Your task to perform on an android device: open app "DuckDuckGo Privacy Browser" Image 0: 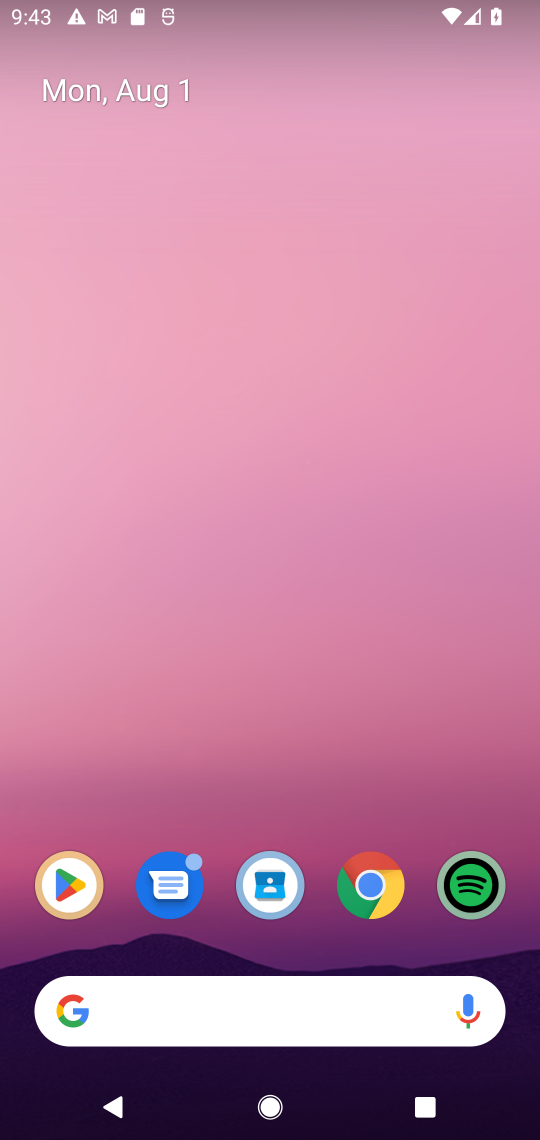
Step 0: drag from (314, 1127) to (280, 32)
Your task to perform on an android device: open app "DuckDuckGo Privacy Browser" Image 1: 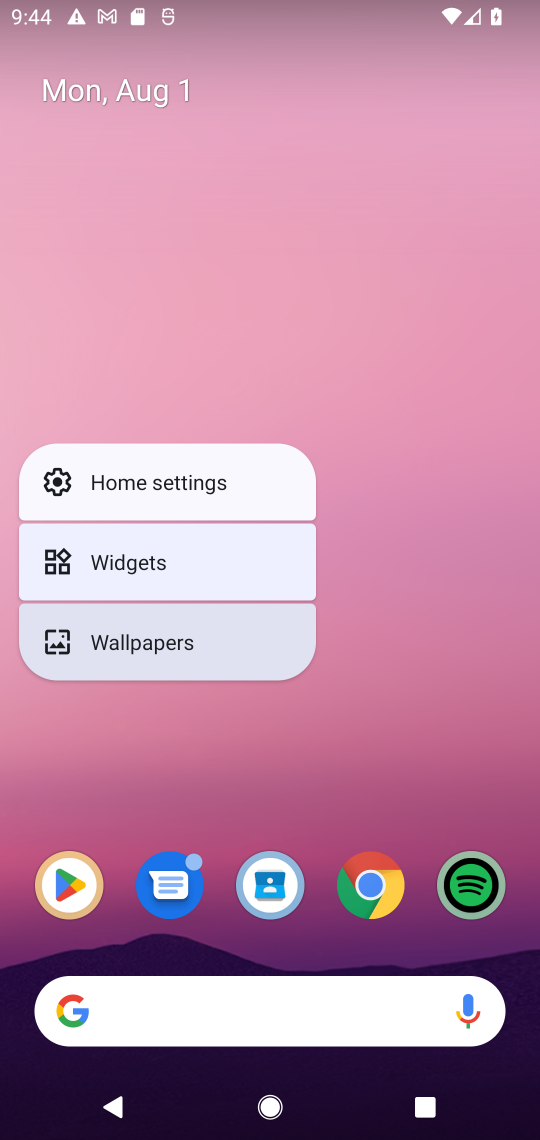
Step 1: click (381, 697)
Your task to perform on an android device: open app "DuckDuckGo Privacy Browser" Image 2: 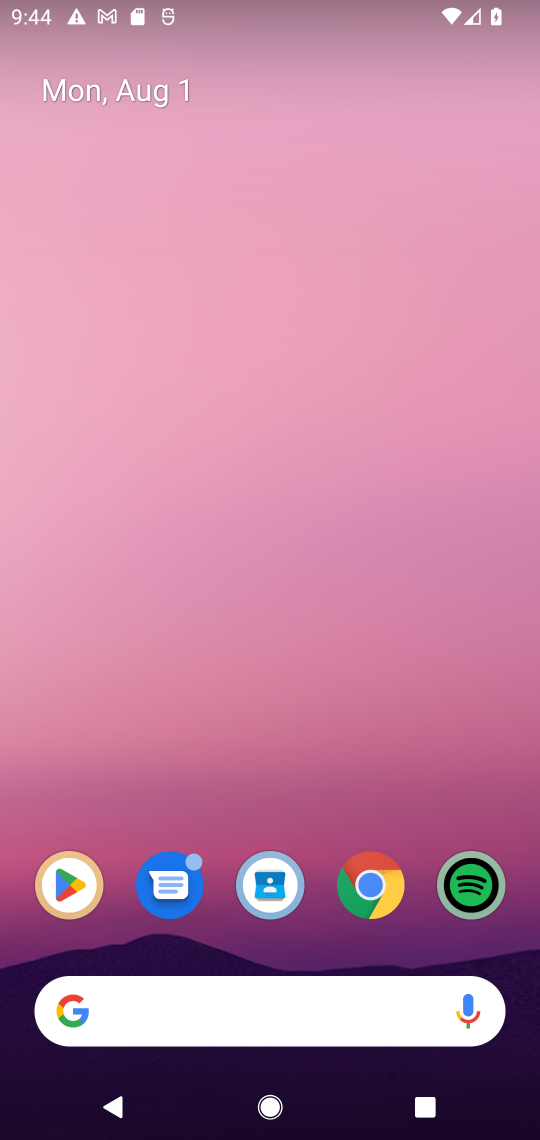
Step 2: drag from (294, 928) to (256, 16)
Your task to perform on an android device: open app "DuckDuckGo Privacy Browser" Image 3: 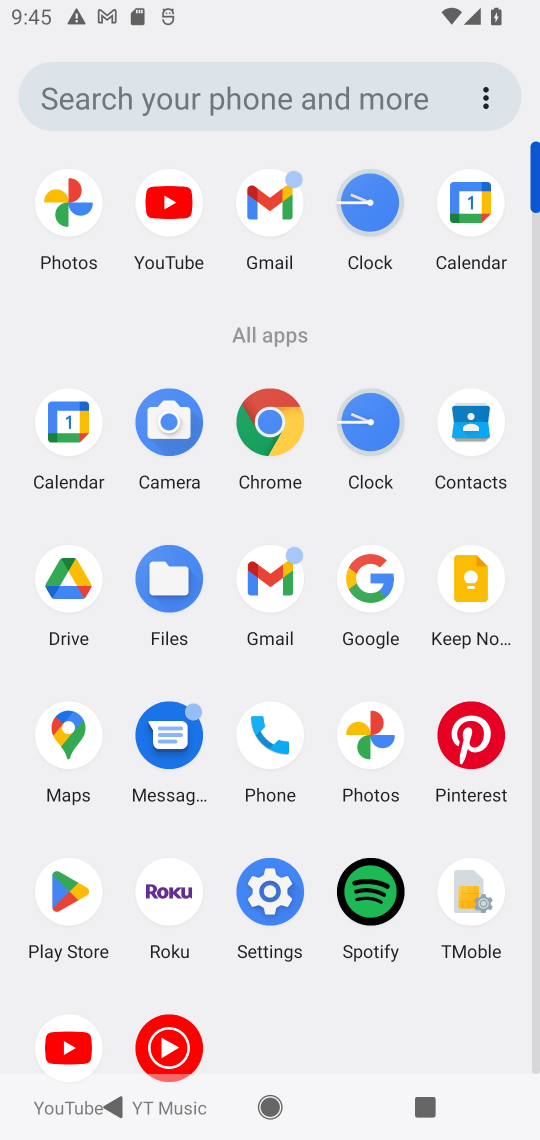
Step 3: click (67, 891)
Your task to perform on an android device: open app "DuckDuckGo Privacy Browser" Image 4: 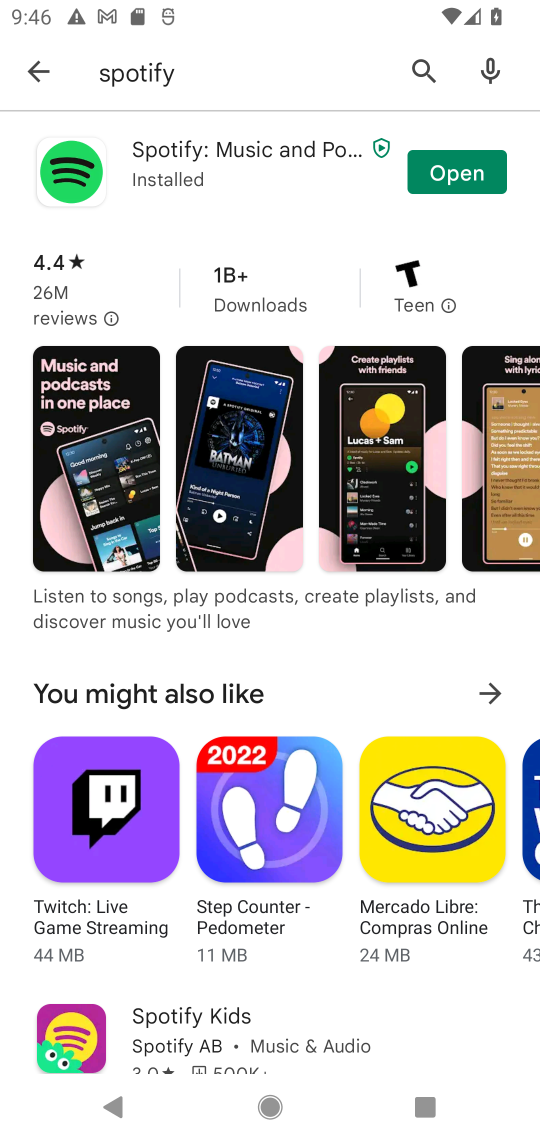
Step 4: click (421, 60)
Your task to perform on an android device: open app "DuckDuckGo Privacy Browser" Image 5: 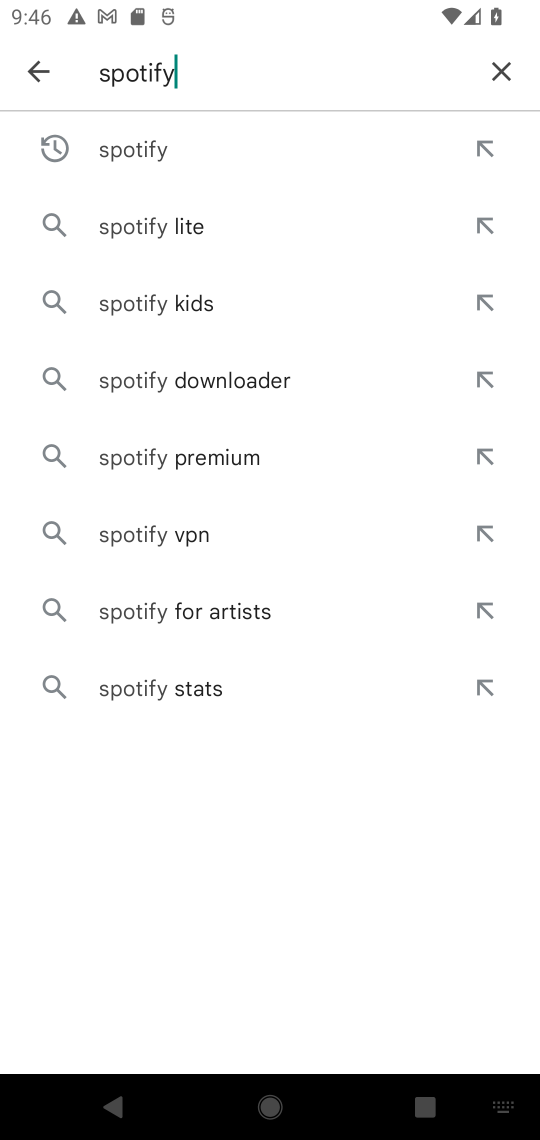
Step 5: click (499, 71)
Your task to perform on an android device: open app "DuckDuckGo Privacy Browser" Image 6: 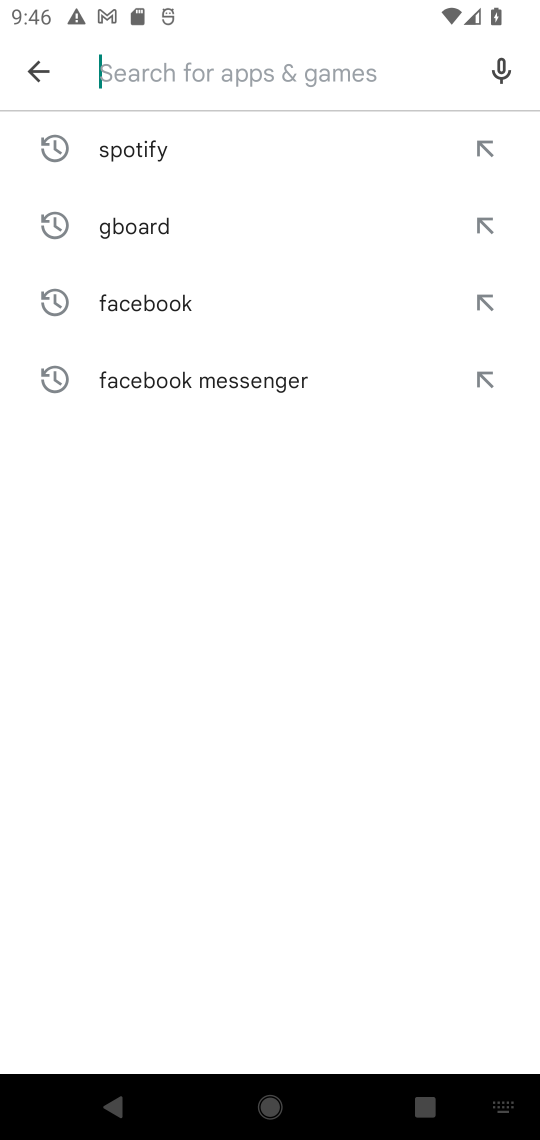
Step 6: type "DuckDuckGo Privacy Browser"
Your task to perform on an android device: open app "DuckDuckGo Privacy Browser" Image 7: 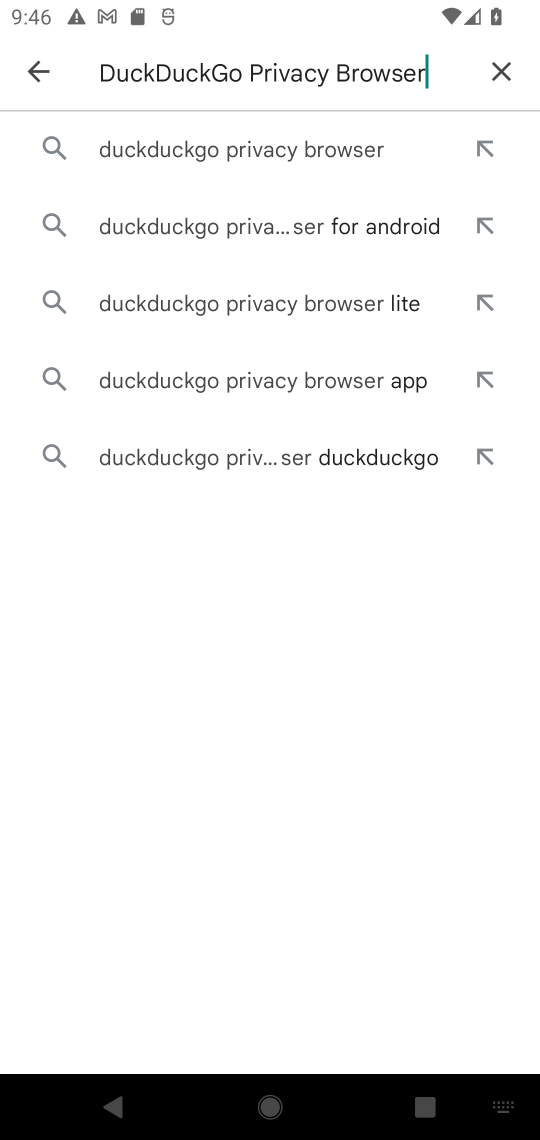
Step 7: click (211, 155)
Your task to perform on an android device: open app "DuckDuckGo Privacy Browser" Image 8: 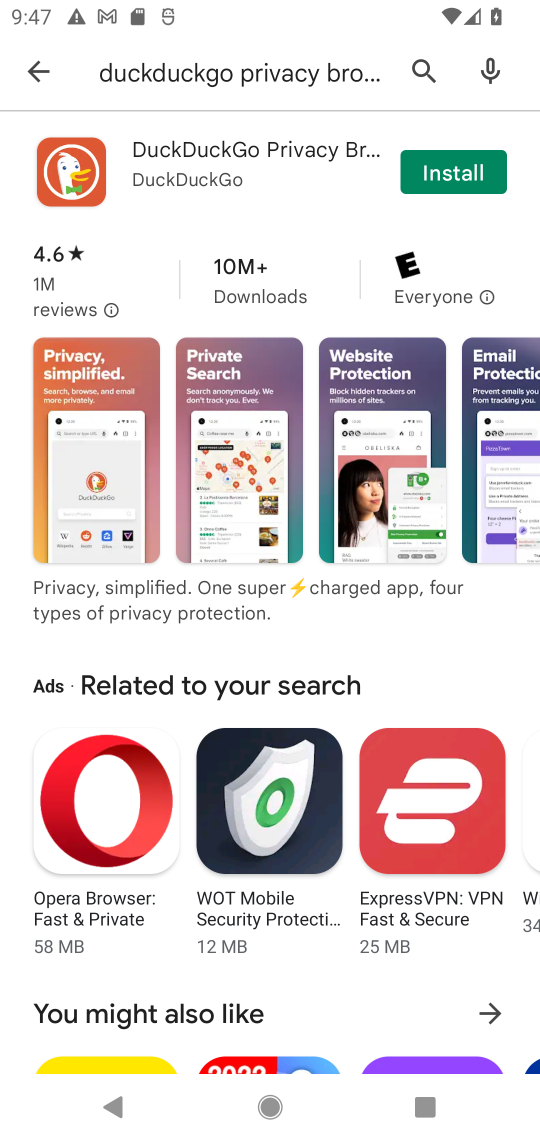
Step 8: task complete